Your task to perform on an android device: open a bookmark in the chrome app Image 0: 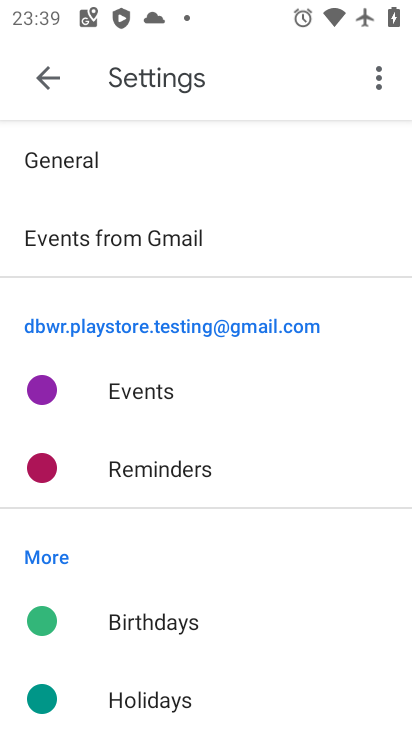
Step 0: press home button
Your task to perform on an android device: open a bookmark in the chrome app Image 1: 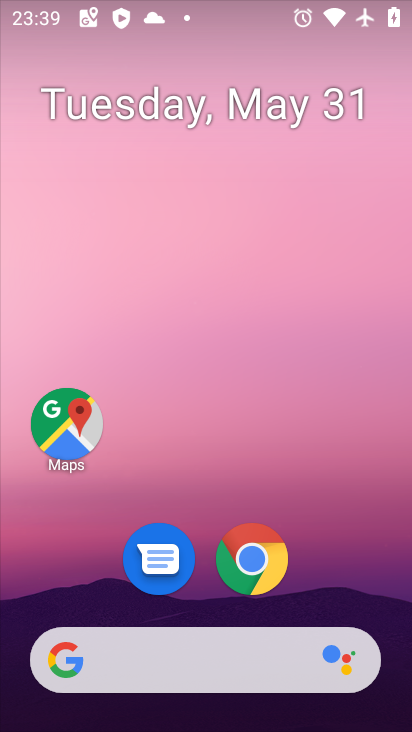
Step 1: click (262, 556)
Your task to perform on an android device: open a bookmark in the chrome app Image 2: 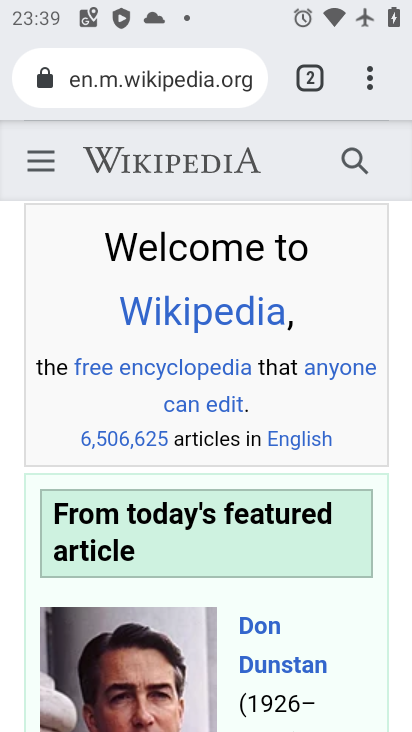
Step 2: click (358, 76)
Your task to perform on an android device: open a bookmark in the chrome app Image 3: 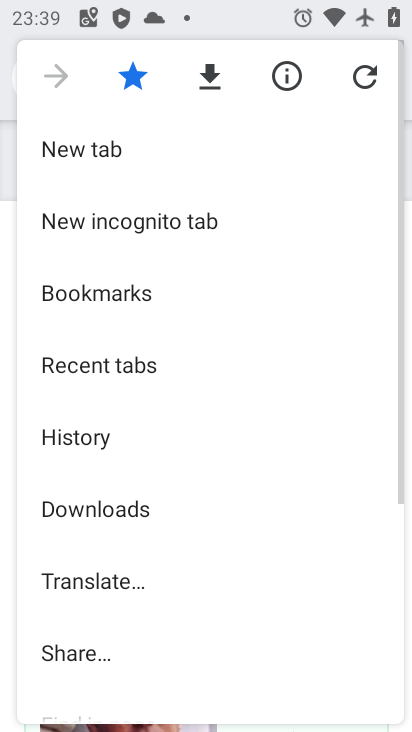
Step 3: drag from (249, 648) to (239, 372)
Your task to perform on an android device: open a bookmark in the chrome app Image 4: 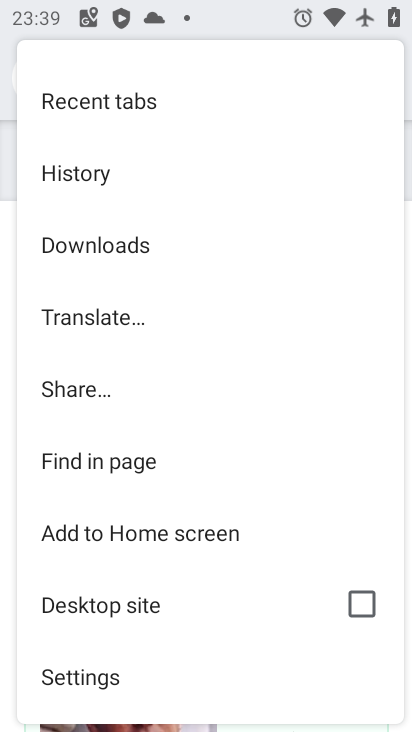
Step 4: drag from (142, 118) to (159, 311)
Your task to perform on an android device: open a bookmark in the chrome app Image 5: 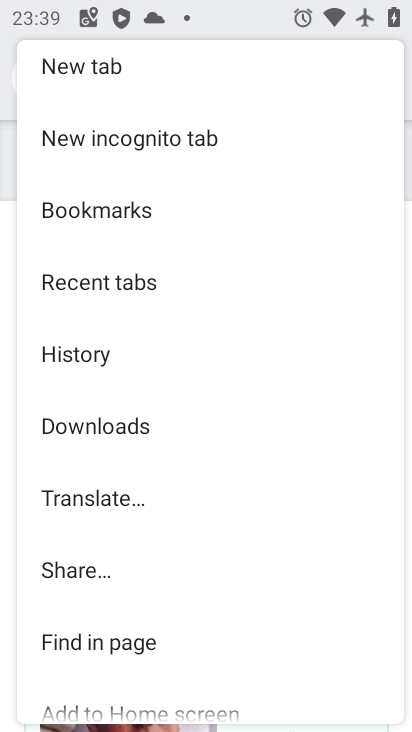
Step 5: click (109, 219)
Your task to perform on an android device: open a bookmark in the chrome app Image 6: 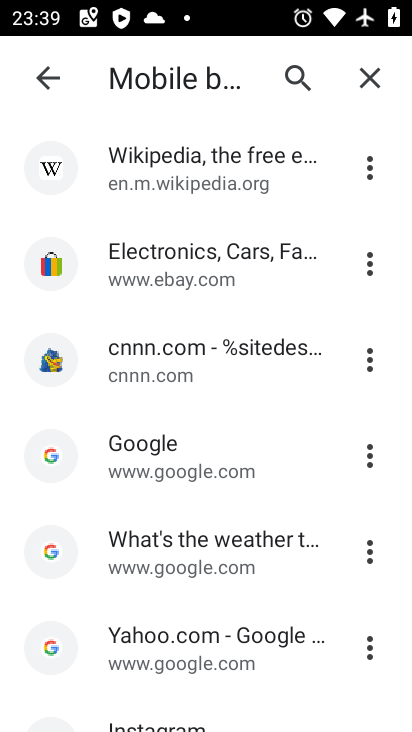
Step 6: click (181, 166)
Your task to perform on an android device: open a bookmark in the chrome app Image 7: 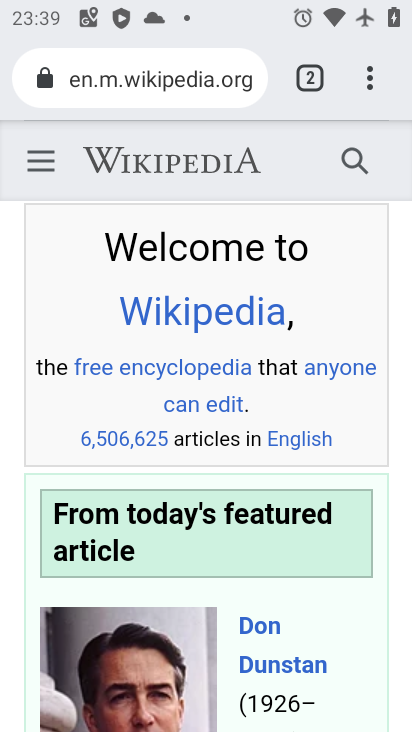
Step 7: task complete